Your task to perform on an android device: create a new album in the google photos Image 0: 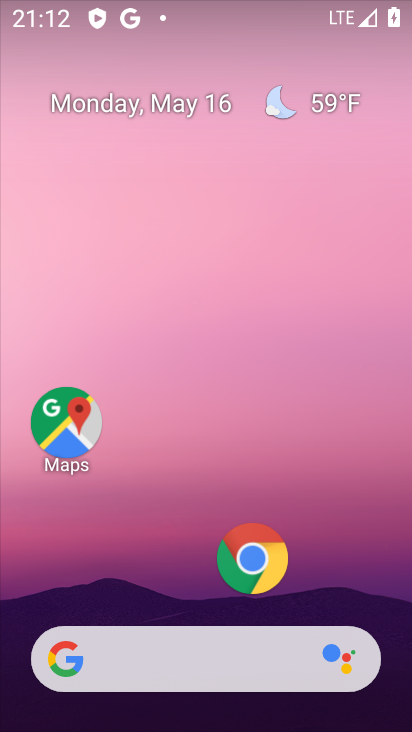
Step 0: drag from (162, 582) to (296, 65)
Your task to perform on an android device: create a new album in the google photos Image 1: 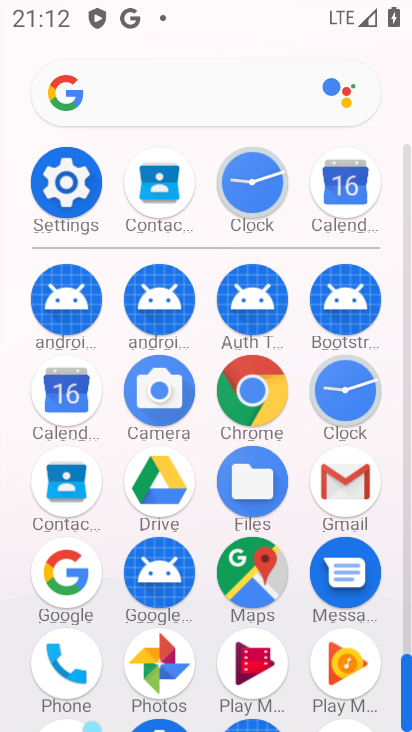
Step 1: click (171, 672)
Your task to perform on an android device: create a new album in the google photos Image 2: 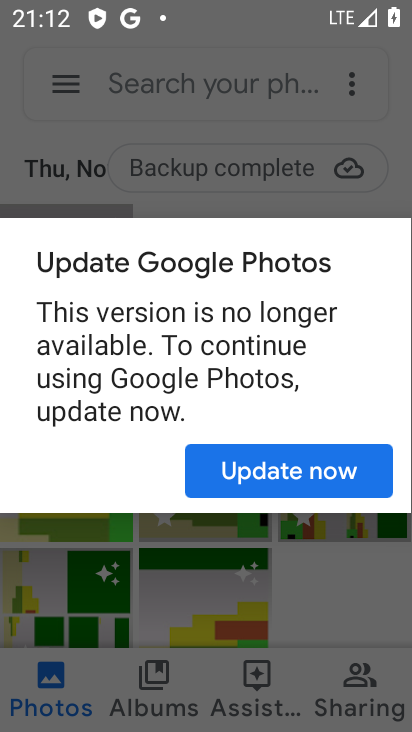
Step 2: click (249, 482)
Your task to perform on an android device: create a new album in the google photos Image 3: 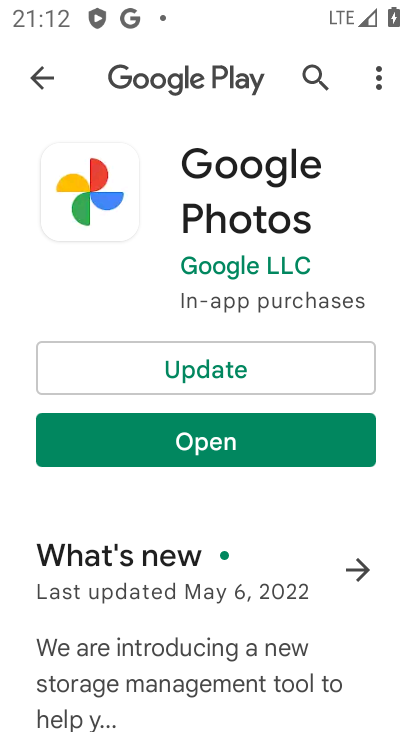
Step 3: click (180, 440)
Your task to perform on an android device: create a new album in the google photos Image 4: 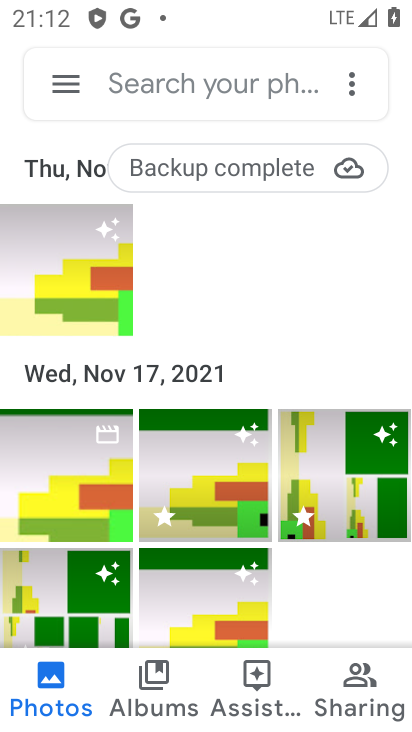
Step 4: click (360, 84)
Your task to perform on an android device: create a new album in the google photos Image 5: 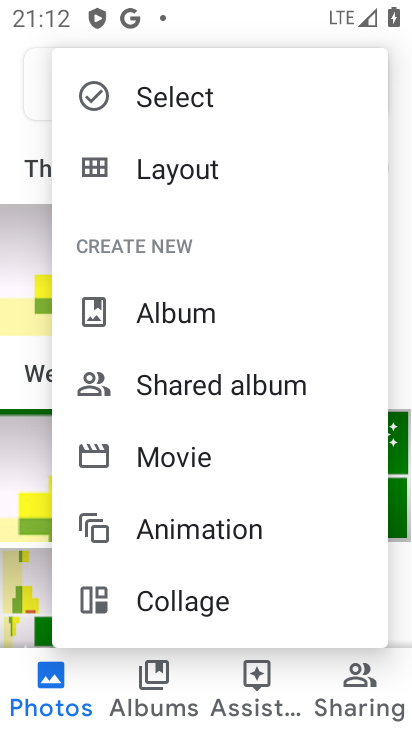
Step 5: click (165, 292)
Your task to perform on an android device: create a new album in the google photos Image 6: 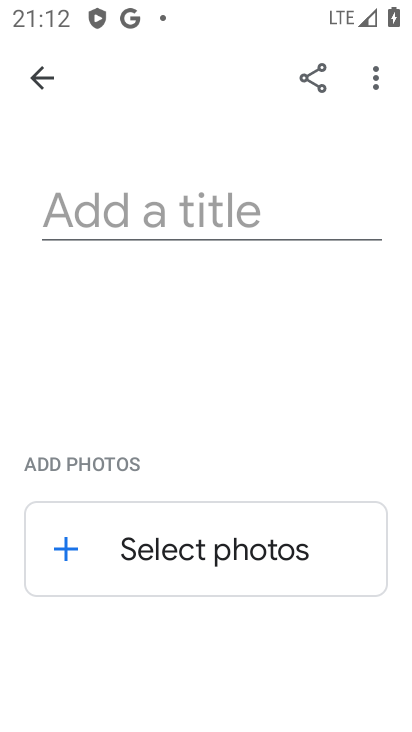
Step 6: click (126, 195)
Your task to perform on an android device: create a new album in the google photos Image 7: 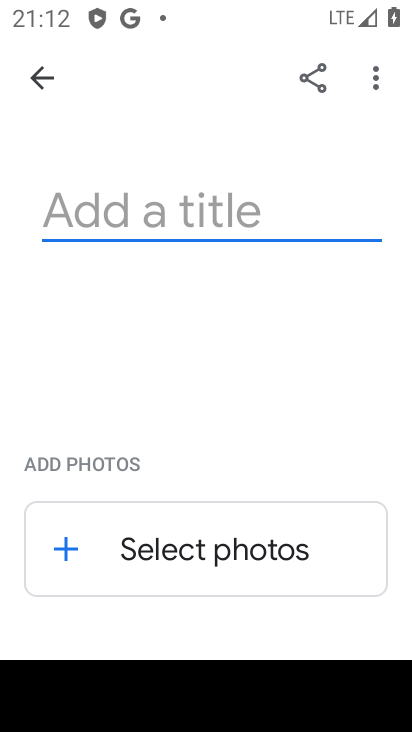
Step 7: type "bvbg"
Your task to perform on an android device: create a new album in the google photos Image 8: 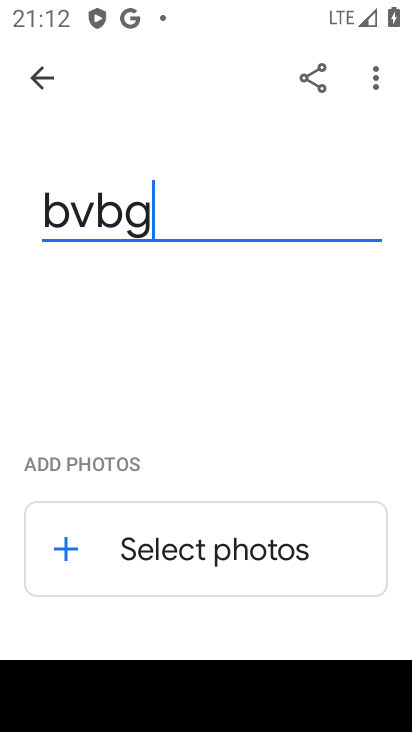
Step 8: click (174, 533)
Your task to perform on an android device: create a new album in the google photos Image 9: 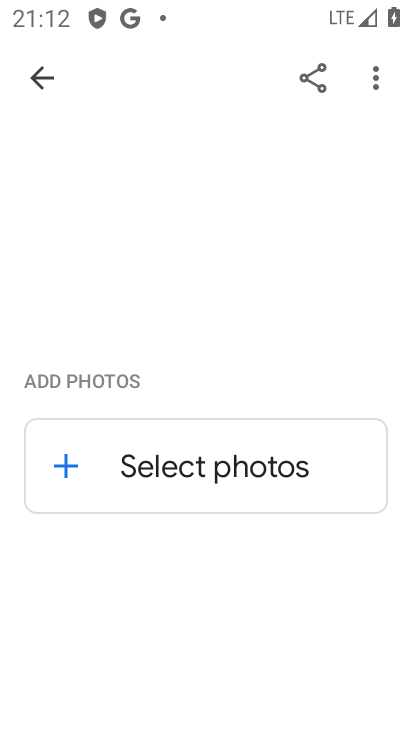
Step 9: click (155, 451)
Your task to perform on an android device: create a new album in the google photos Image 10: 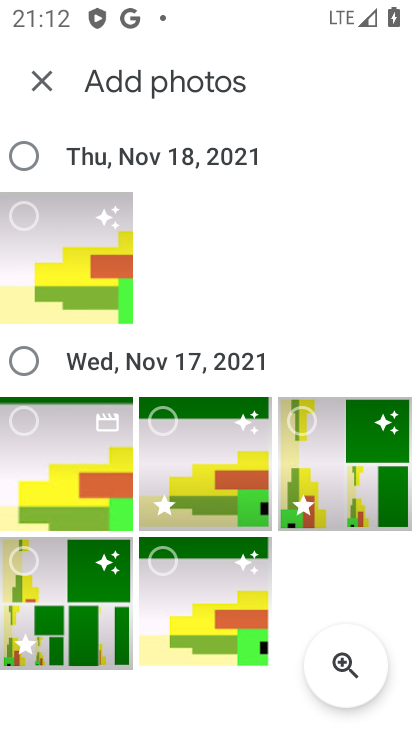
Step 10: click (31, 158)
Your task to perform on an android device: create a new album in the google photos Image 11: 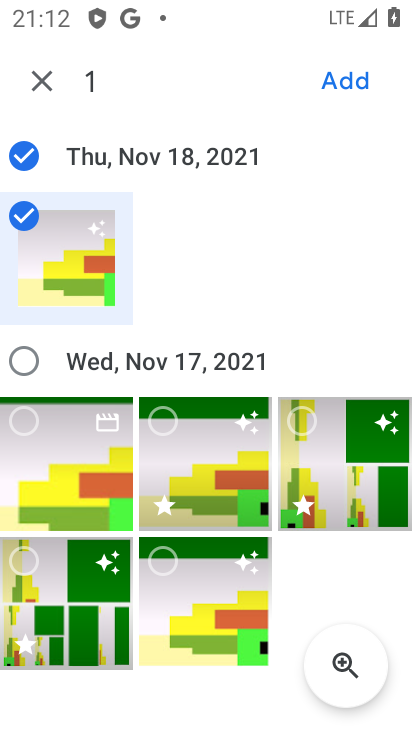
Step 11: click (22, 359)
Your task to perform on an android device: create a new album in the google photos Image 12: 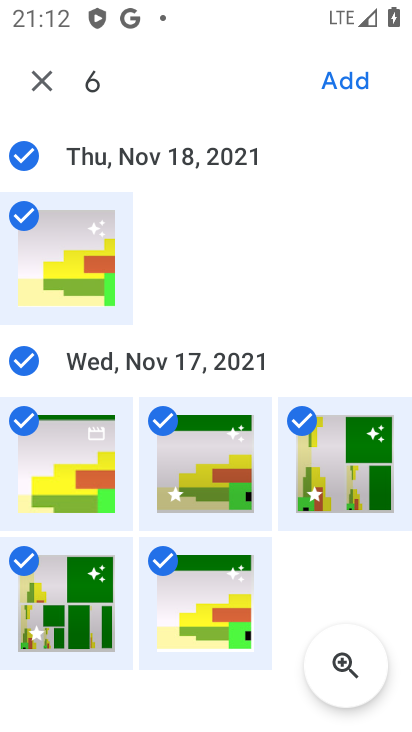
Step 12: click (346, 81)
Your task to perform on an android device: create a new album in the google photos Image 13: 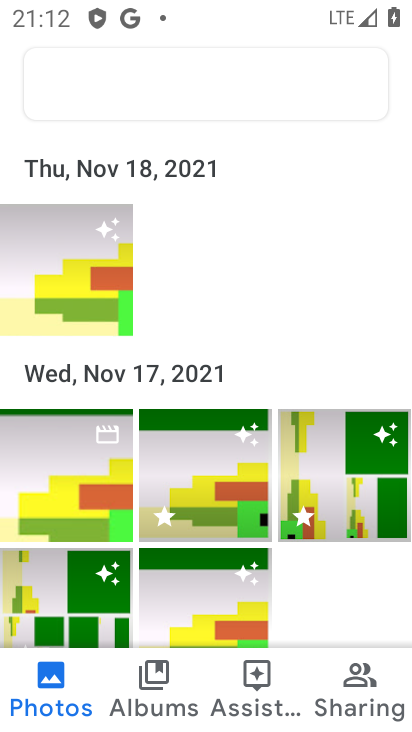
Step 13: task complete